Your task to perform on an android device: Open Chrome and go to settings Image 0: 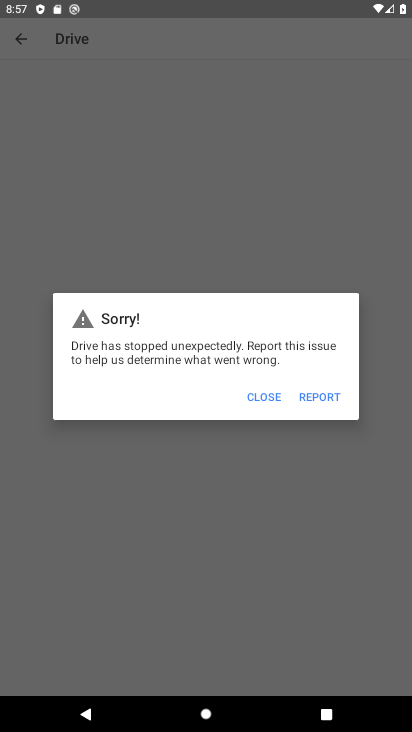
Step 0: press home button
Your task to perform on an android device: Open Chrome and go to settings Image 1: 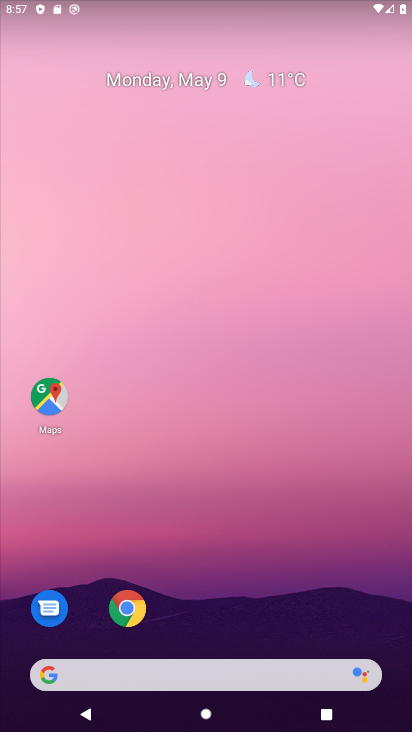
Step 1: click (126, 603)
Your task to perform on an android device: Open Chrome and go to settings Image 2: 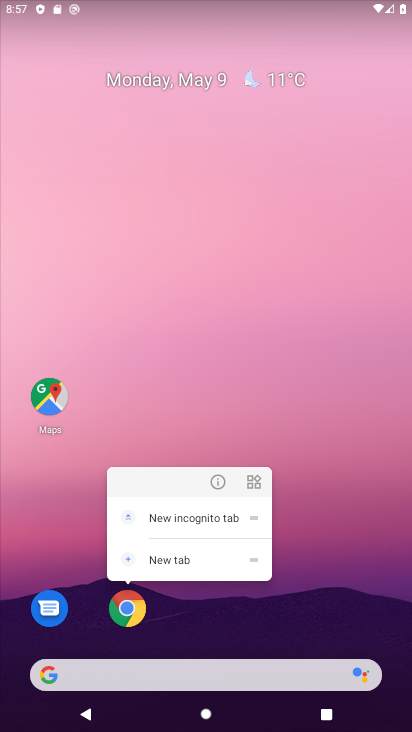
Step 2: click (213, 481)
Your task to perform on an android device: Open Chrome and go to settings Image 3: 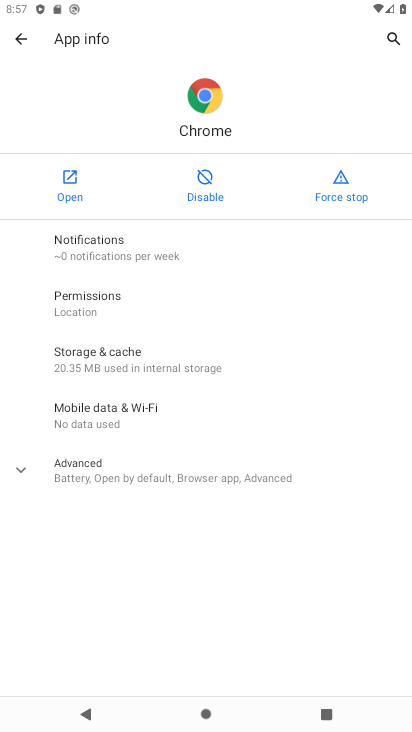
Step 3: click (89, 179)
Your task to perform on an android device: Open Chrome and go to settings Image 4: 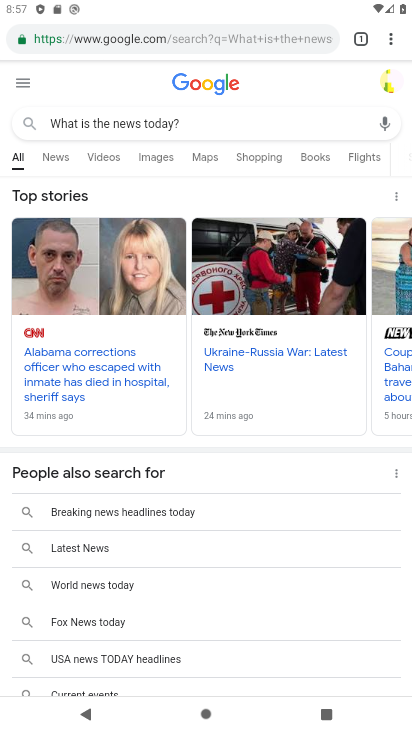
Step 4: click (393, 41)
Your task to perform on an android device: Open Chrome and go to settings Image 5: 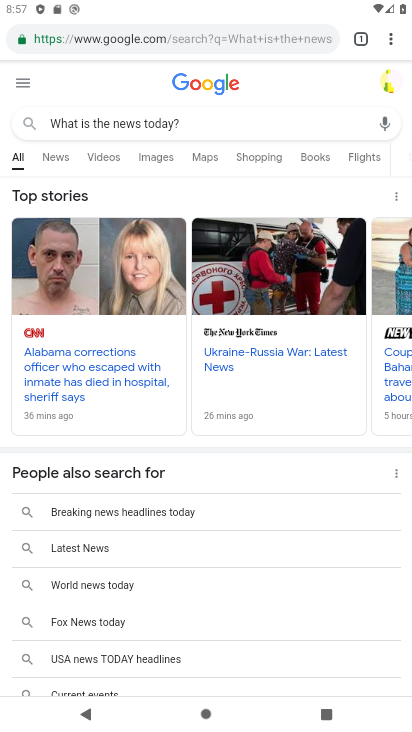
Step 5: click (391, 37)
Your task to perform on an android device: Open Chrome and go to settings Image 6: 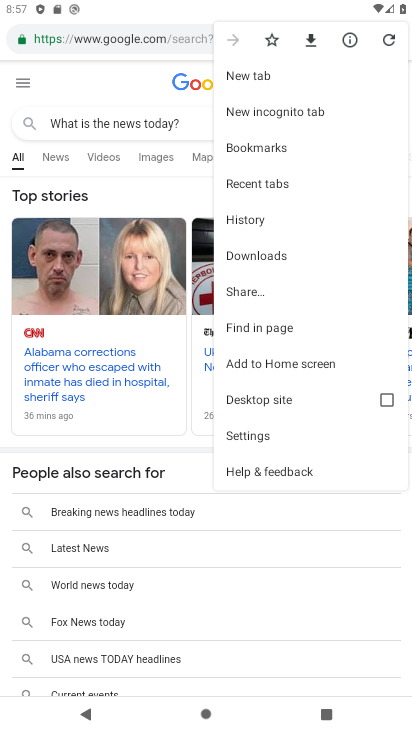
Step 6: click (257, 437)
Your task to perform on an android device: Open Chrome and go to settings Image 7: 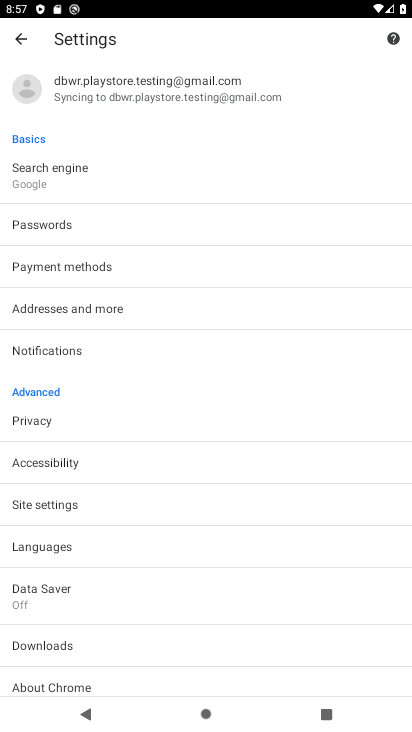
Step 7: task complete